Your task to perform on an android device: move an email to a new category in the gmail app Image 0: 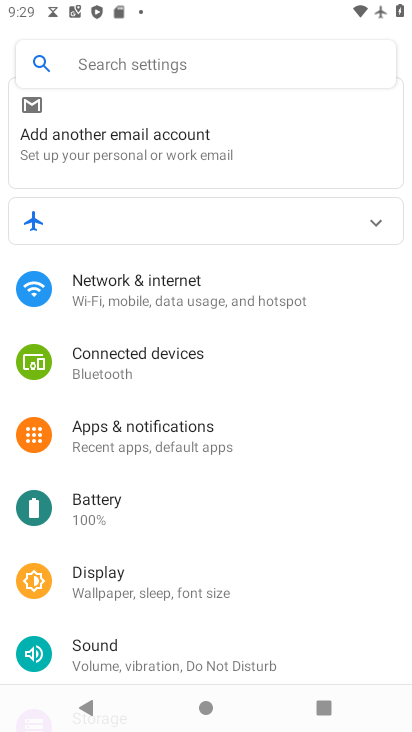
Step 0: press home button
Your task to perform on an android device: move an email to a new category in the gmail app Image 1: 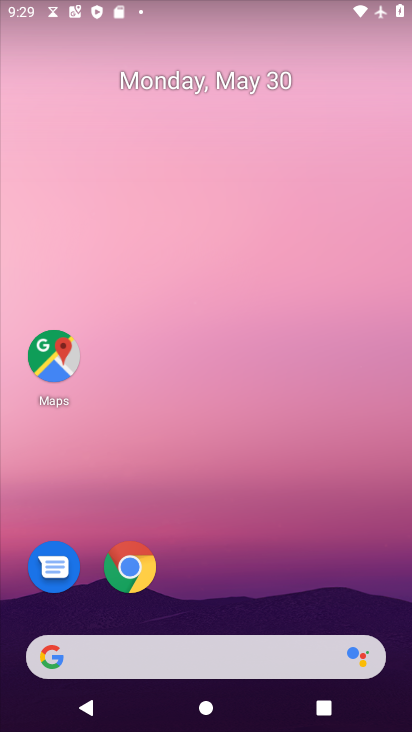
Step 1: drag from (219, 617) to (207, 161)
Your task to perform on an android device: move an email to a new category in the gmail app Image 2: 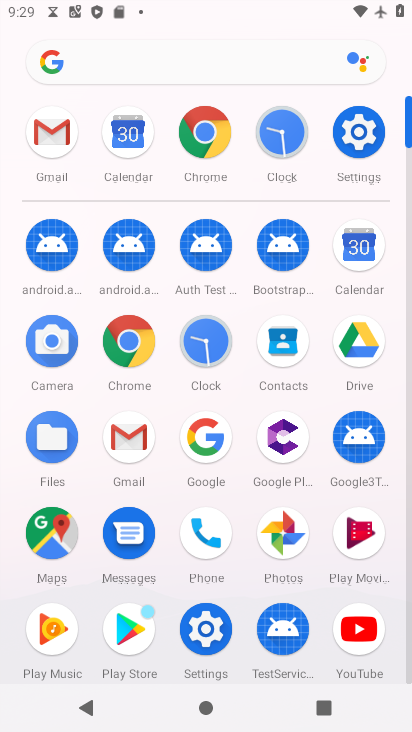
Step 2: click (71, 149)
Your task to perform on an android device: move an email to a new category in the gmail app Image 3: 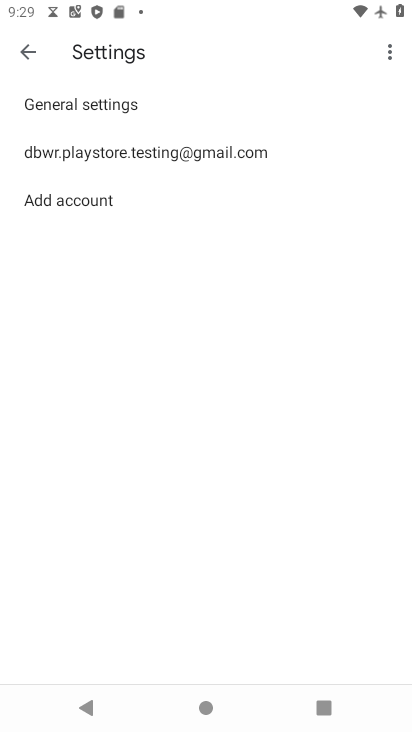
Step 3: click (23, 49)
Your task to perform on an android device: move an email to a new category in the gmail app Image 4: 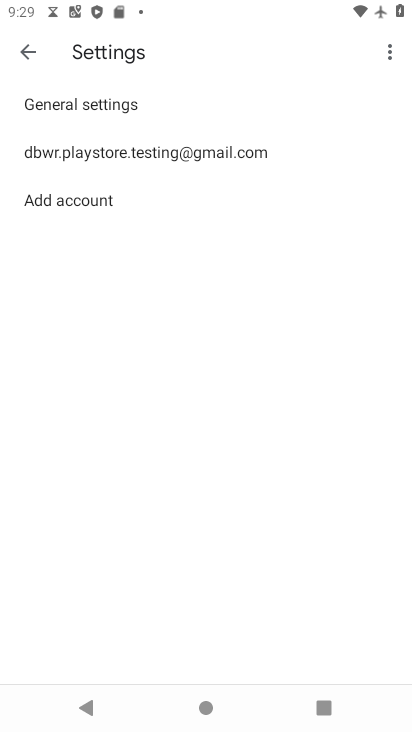
Step 4: click (33, 50)
Your task to perform on an android device: move an email to a new category in the gmail app Image 5: 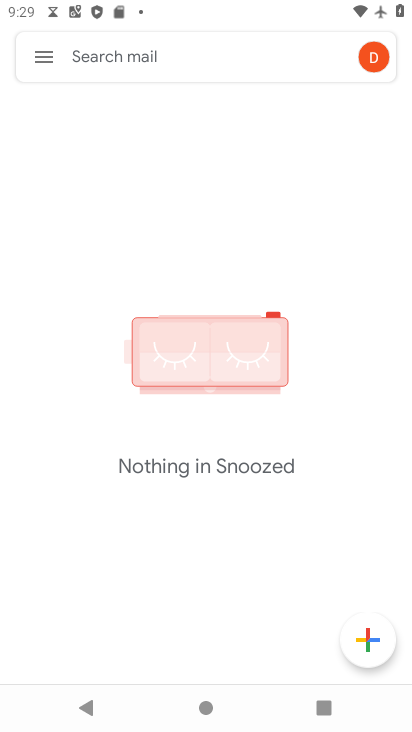
Step 5: click (38, 60)
Your task to perform on an android device: move an email to a new category in the gmail app Image 6: 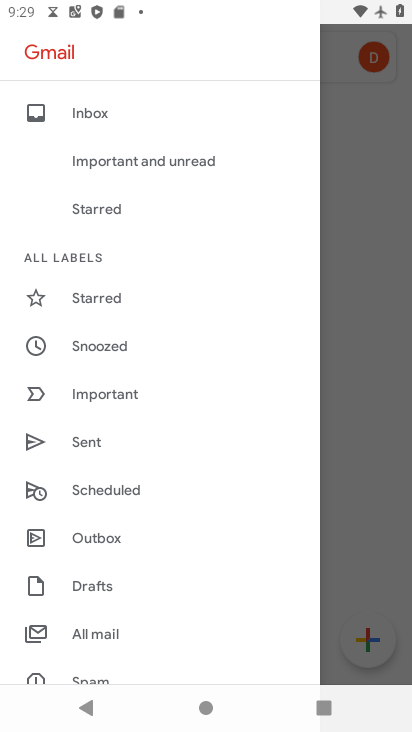
Step 6: click (153, 125)
Your task to perform on an android device: move an email to a new category in the gmail app Image 7: 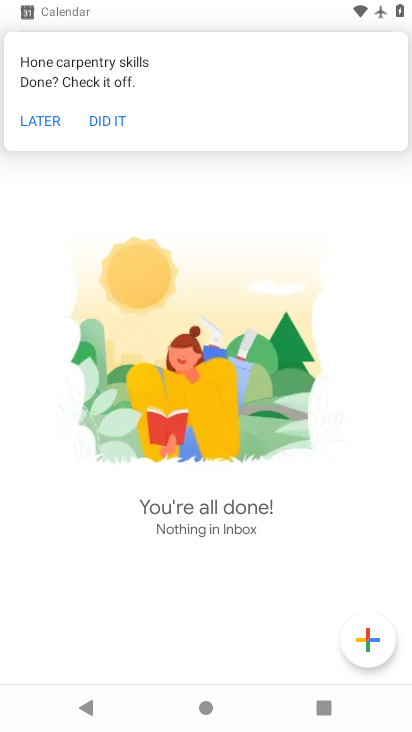
Step 7: task complete